Your task to perform on an android device: turn off airplane mode Image 0: 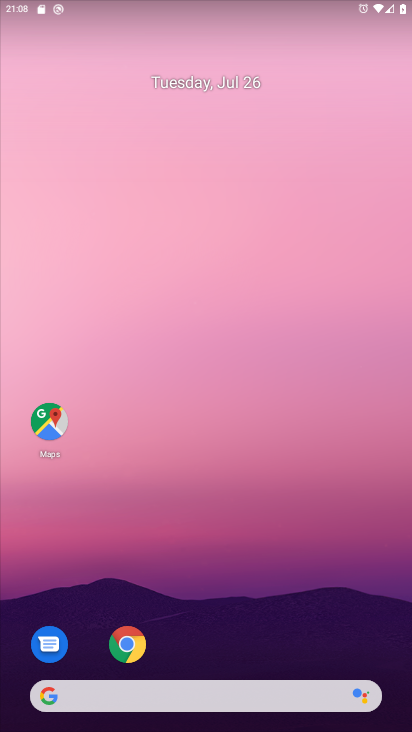
Step 0: drag from (222, 669) to (228, 276)
Your task to perform on an android device: turn off airplane mode Image 1: 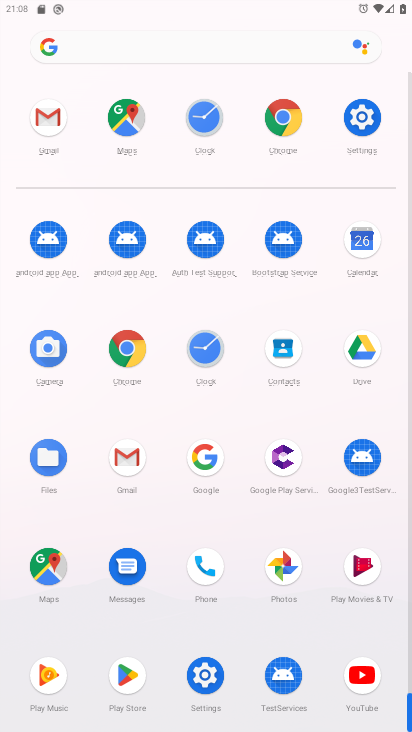
Step 1: click (357, 114)
Your task to perform on an android device: turn off airplane mode Image 2: 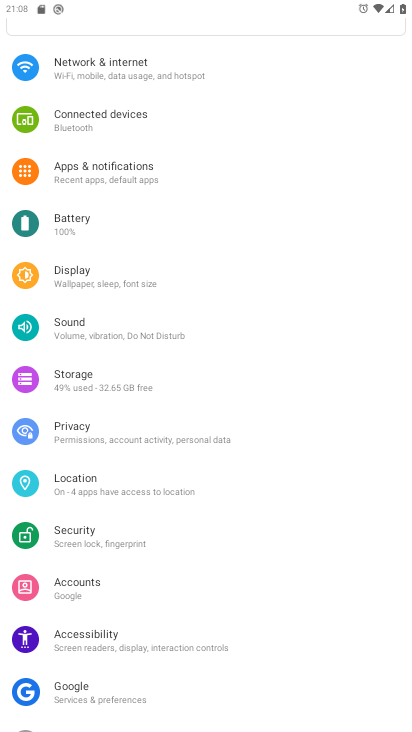
Step 2: drag from (131, 72) to (152, 630)
Your task to perform on an android device: turn off airplane mode Image 3: 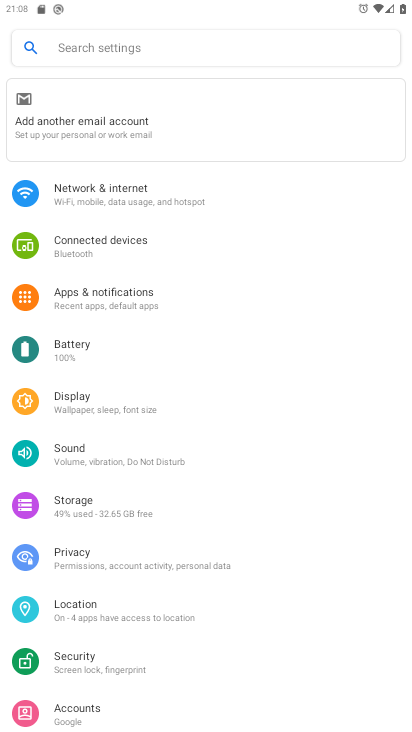
Step 3: click (117, 182)
Your task to perform on an android device: turn off airplane mode Image 4: 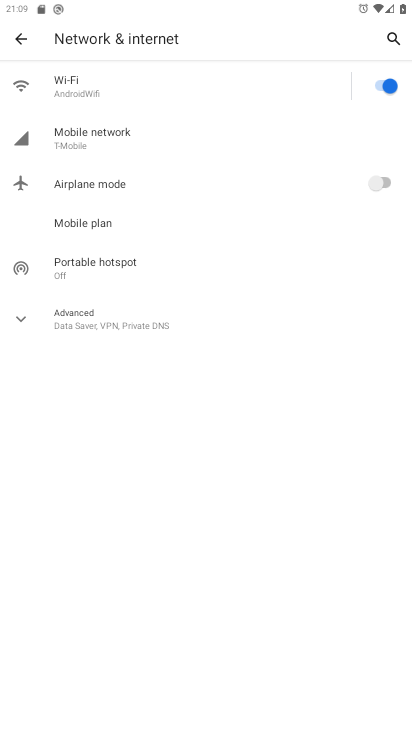
Step 4: task complete